Your task to perform on an android device: read, delete, or share a saved page in the chrome app Image 0: 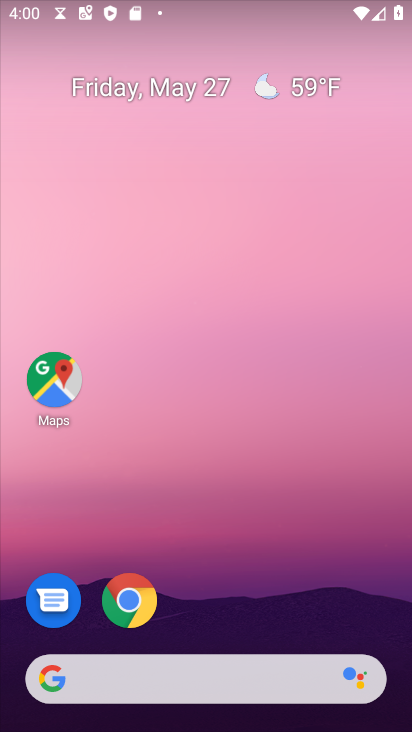
Step 0: click (131, 599)
Your task to perform on an android device: read, delete, or share a saved page in the chrome app Image 1: 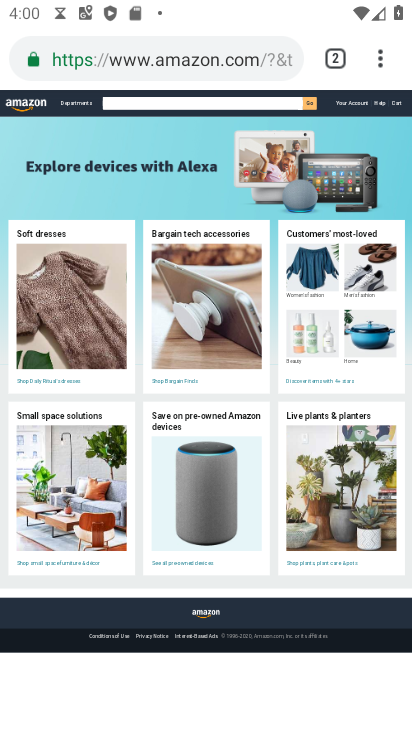
Step 1: click (381, 56)
Your task to perform on an android device: read, delete, or share a saved page in the chrome app Image 2: 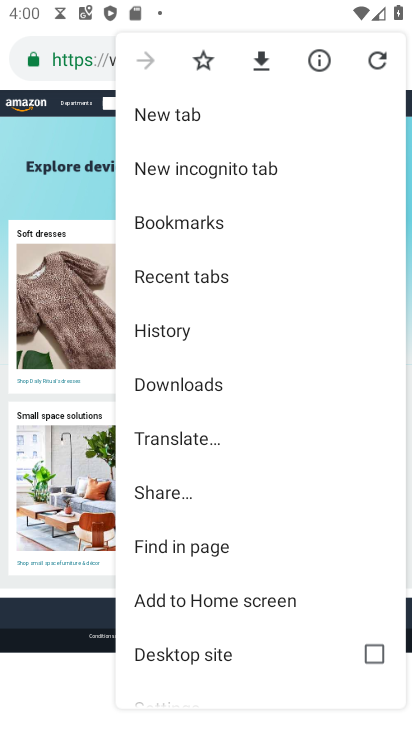
Step 2: click (193, 387)
Your task to perform on an android device: read, delete, or share a saved page in the chrome app Image 3: 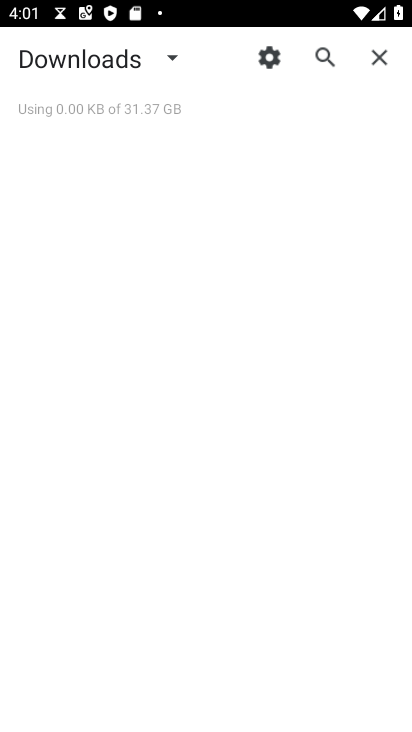
Step 3: click (177, 51)
Your task to perform on an android device: read, delete, or share a saved page in the chrome app Image 4: 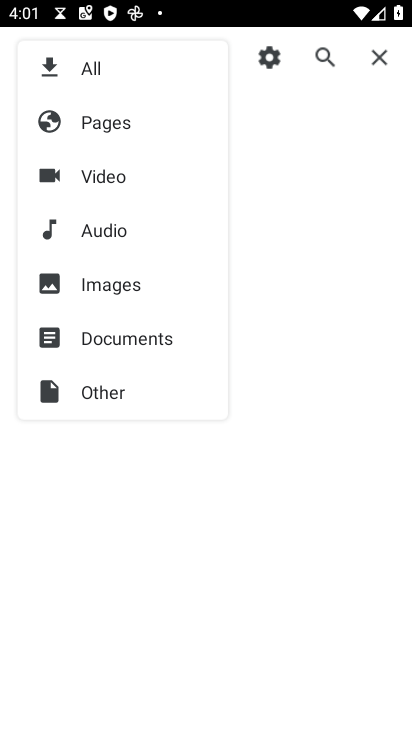
Step 4: click (130, 338)
Your task to perform on an android device: read, delete, or share a saved page in the chrome app Image 5: 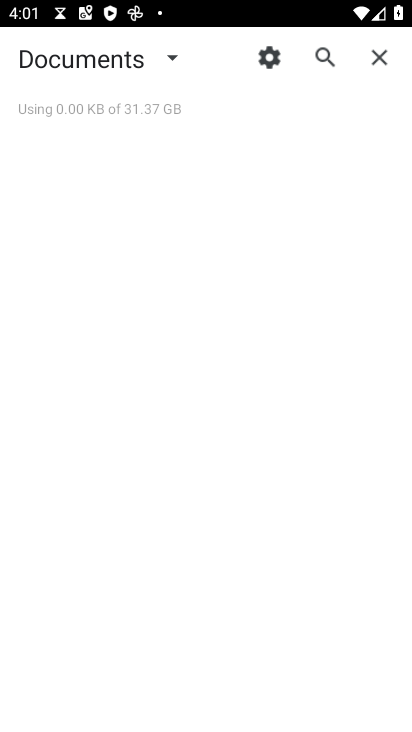
Step 5: click (175, 58)
Your task to perform on an android device: read, delete, or share a saved page in the chrome app Image 6: 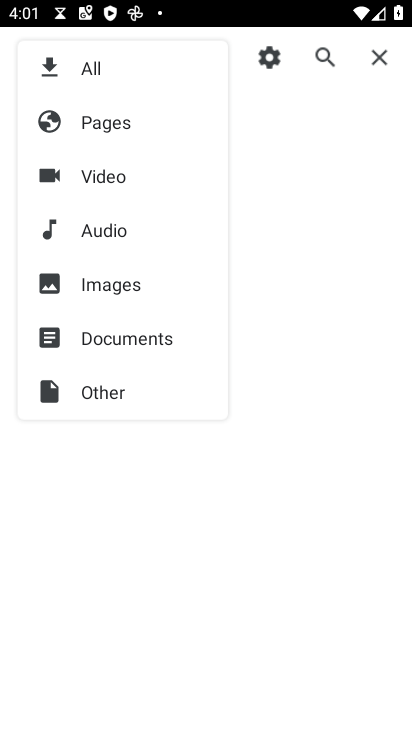
Step 6: click (122, 120)
Your task to perform on an android device: read, delete, or share a saved page in the chrome app Image 7: 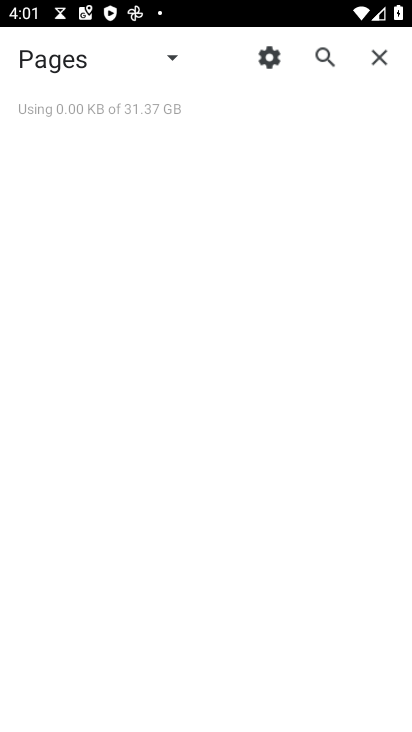
Step 7: task complete